Your task to perform on an android device: Open settings Image 0: 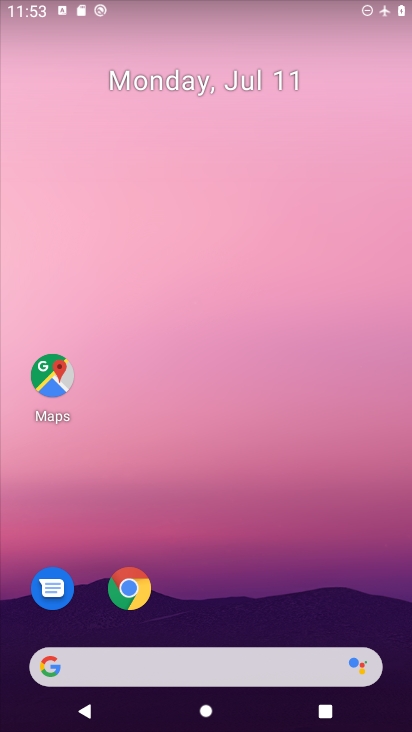
Step 0: drag from (390, 652) to (230, 4)
Your task to perform on an android device: Open settings Image 1: 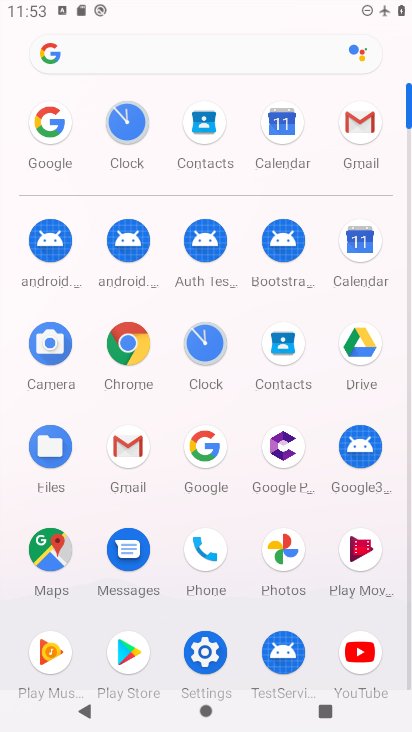
Step 1: click (187, 654)
Your task to perform on an android device: Open settings Image 2: 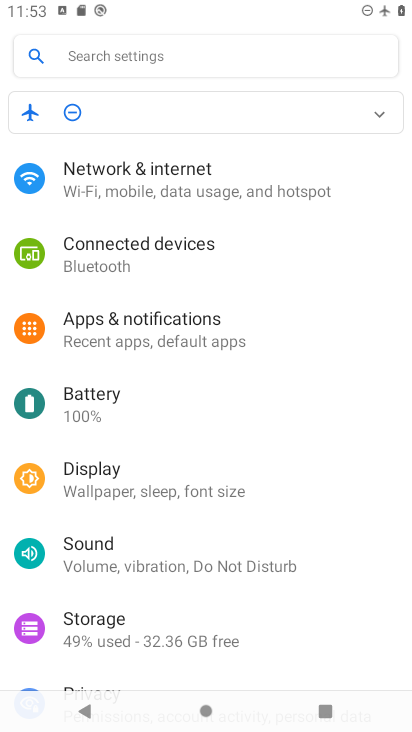
Step 2: task complete